Your task to perform on an android device: Clear the cart on bestbuy. Search for "logitech g pro" on bestbuy, select the first entry, add it to the cart, then select checkout. Image 0: 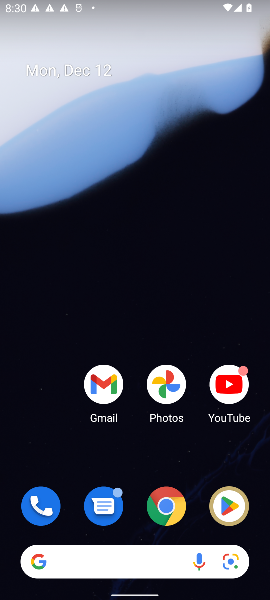
Step 0: click (162, 517)
Your task to perform on an android device: Clear the cart on bestbuy. Search for "logitech g pro" on bestbuy, select the first entry, add it to the cart, then select checkout. Image 1: 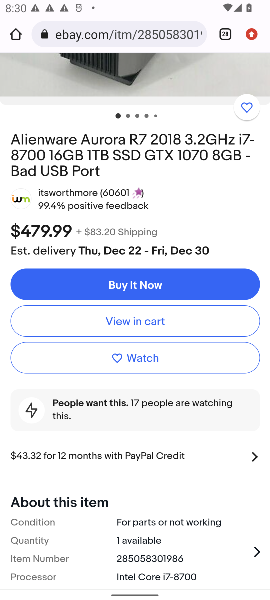
Step 1: task complete